Your task to perform on an android device: delete the emails in spam in the gmail app Image 0: 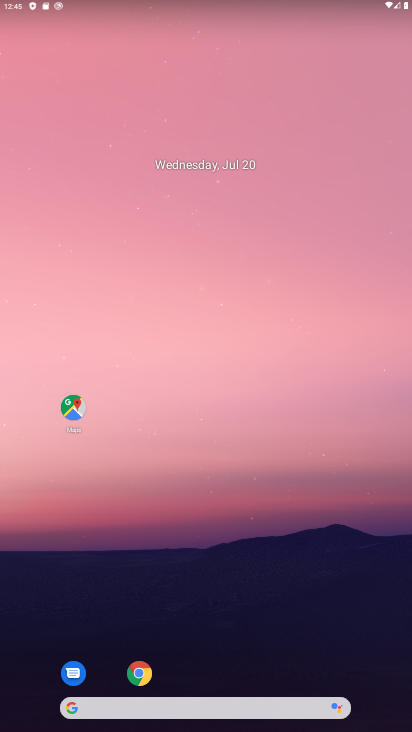
Step 0: drag from (193, 676) to (213, 162)
Your task to perform on an android device: delete the emails in spam in the gmail app Image 1: 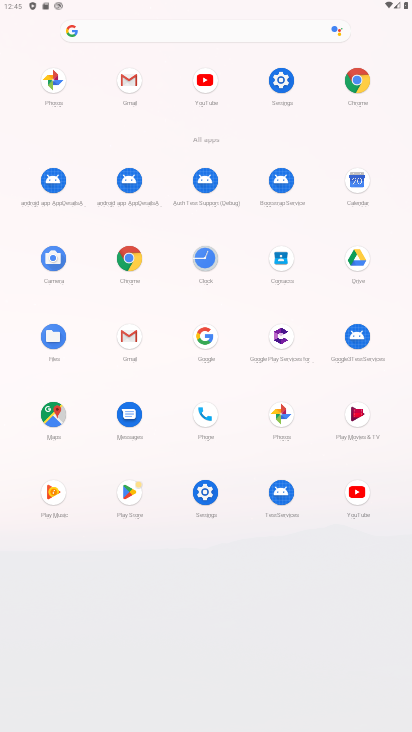
Step 1: click (124, 83)
Your task to perform on an android device: delete the emails in spam in the gmail app Image 2: 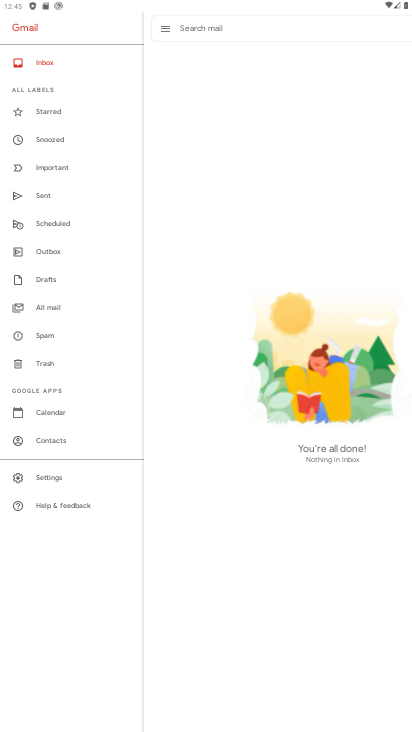
Step 2: task complete